Your task to perform on an android device: View the shopping cart on costco.com. Add logitech g pro to the cart on costco.com Image 0: 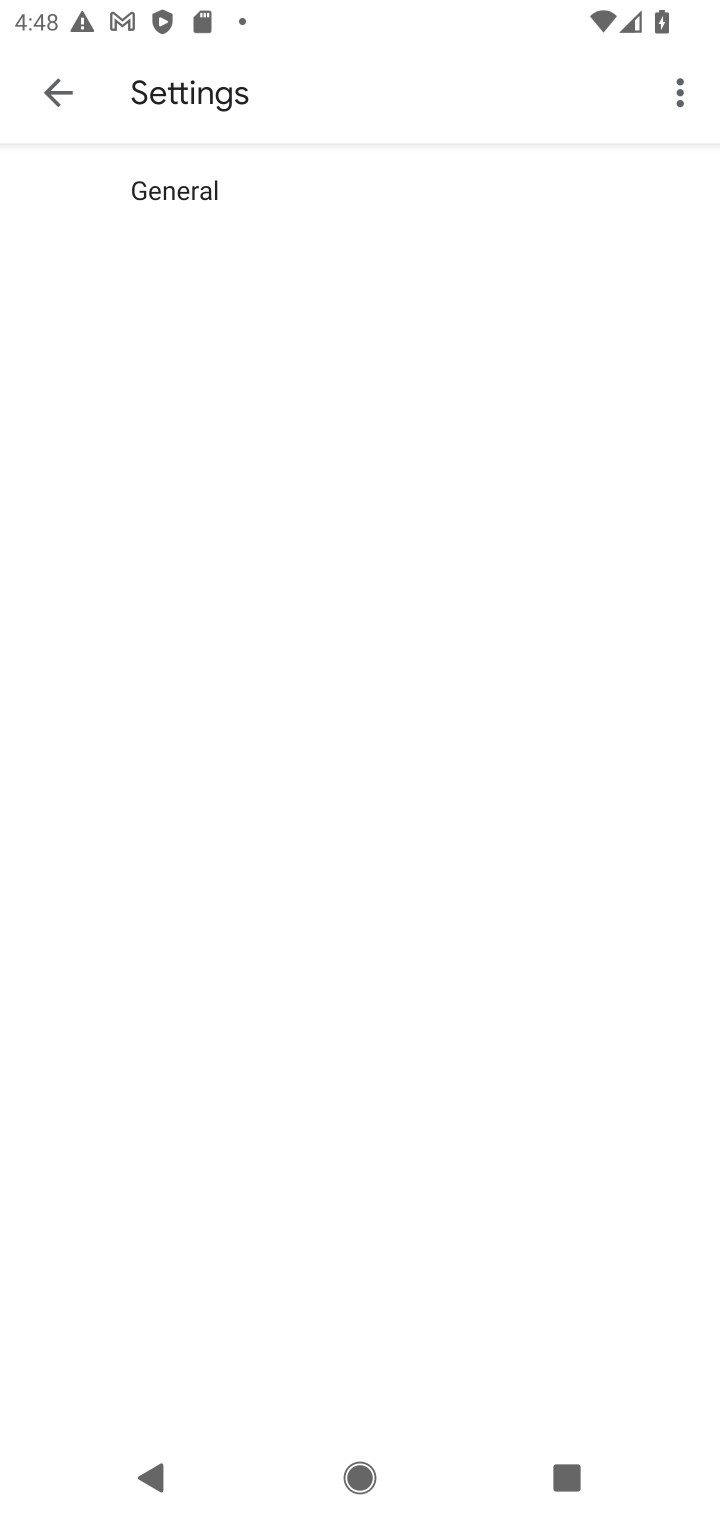
Step 0: press home button
Your task to perform on an android device: View the shopping cart on costco.com. Add logitech g pro to the cart on costco.com Image 1: 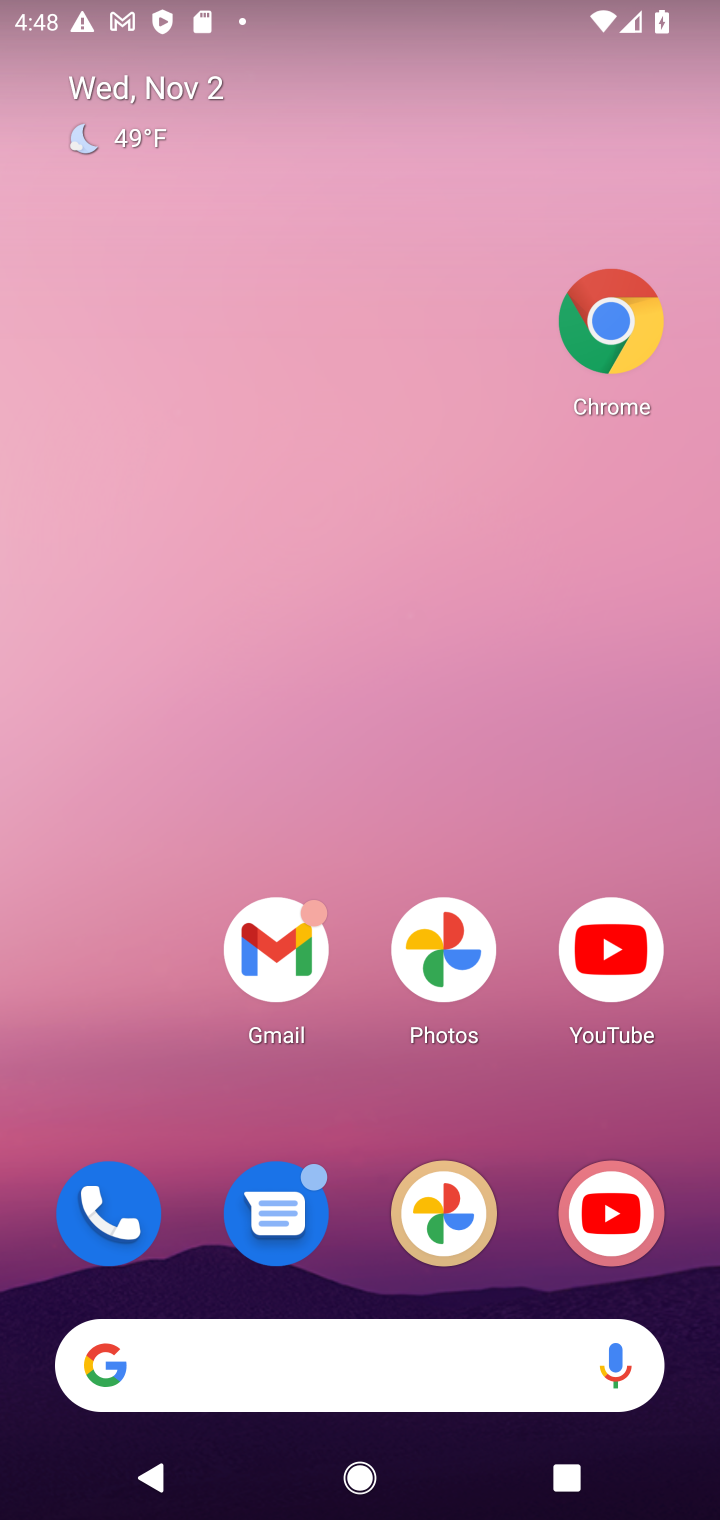
Step 1: drag from (444, 1047) to (492, 698)
Your task to perform on an android device: View the shopping cart on costco.com. Add logitech g pro to the cart on costco.com Image 2: 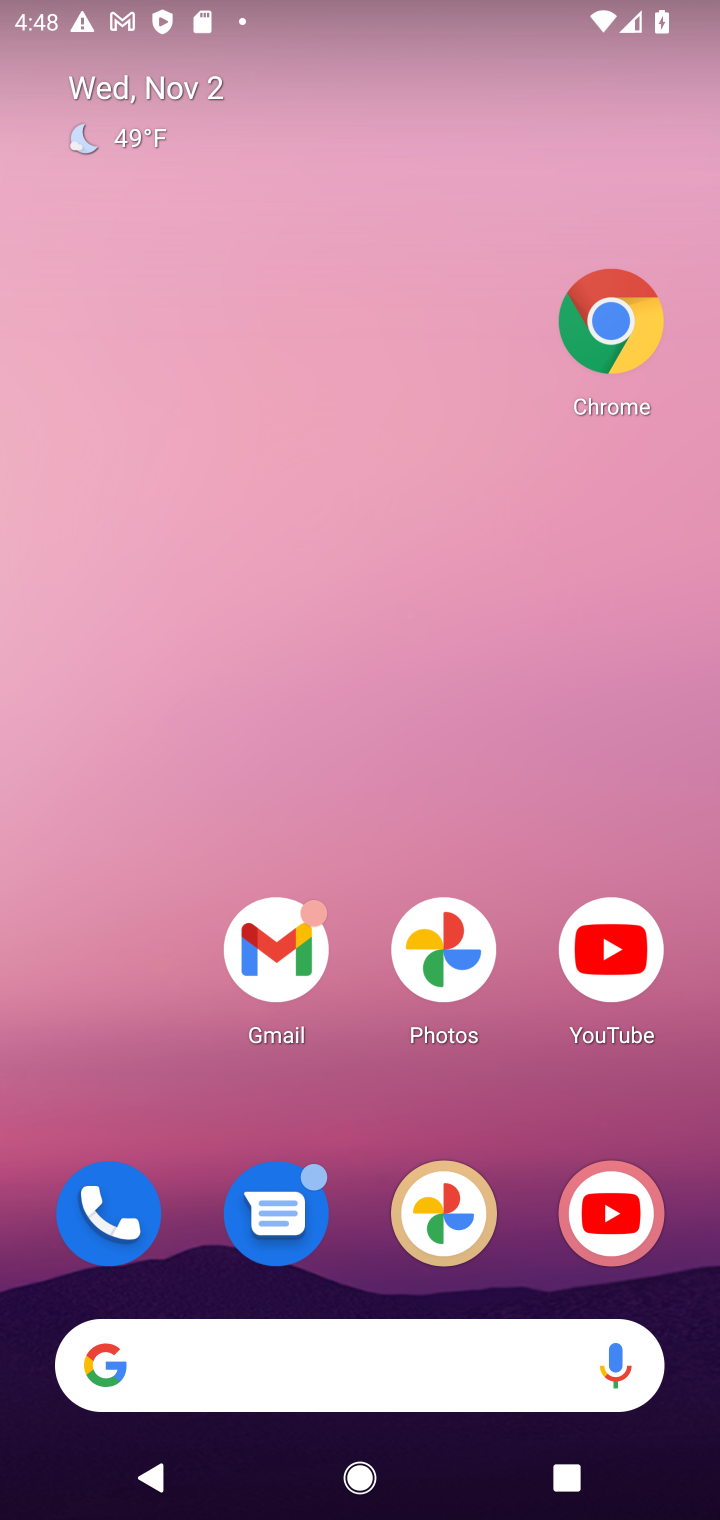
Step 2: drag from (398, 1270) to (291, 67)
Your task to perform on an android device: View the shopping cart on costco.com. Add logitech g pro to the cart on costco.com Image 3: 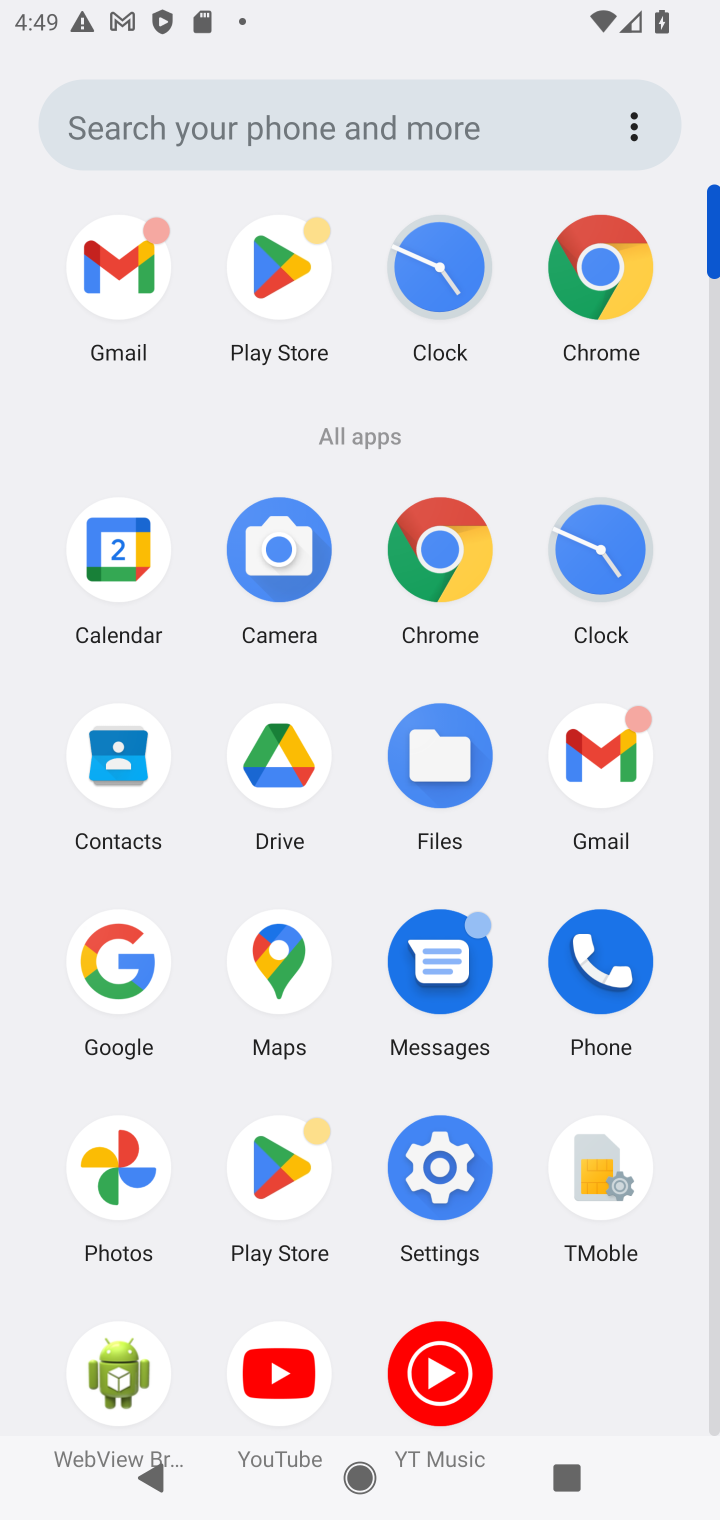
Step 3: click (117, 989)
Your task to perform on an android device: View the shopping cart on costco.com. Add logitech g pro to the cart on costco.com Image 4: 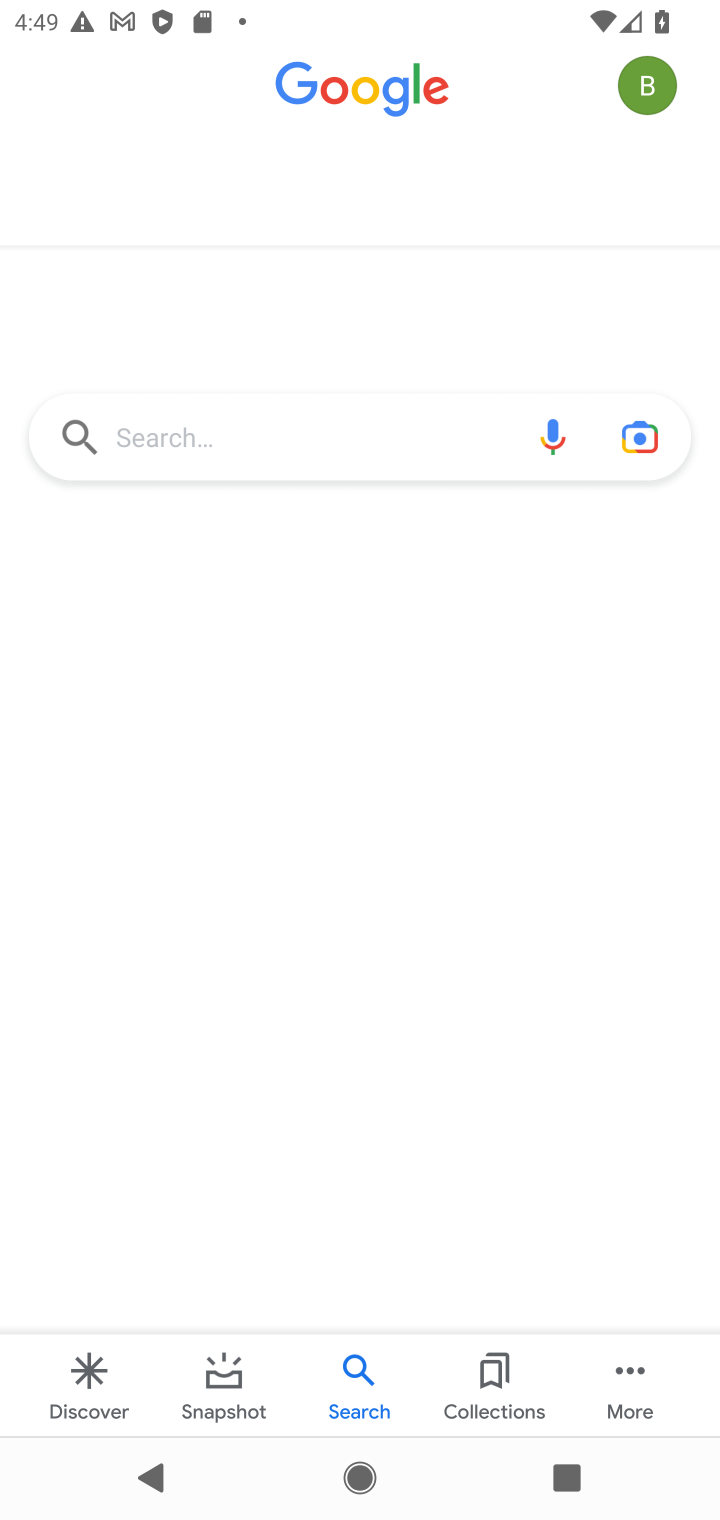
Step 4: click (370, 436)
Your task to perform on an android device: View the shopping cart on costco.com. Add logitech g pro to the cart on costco.com Image 5: 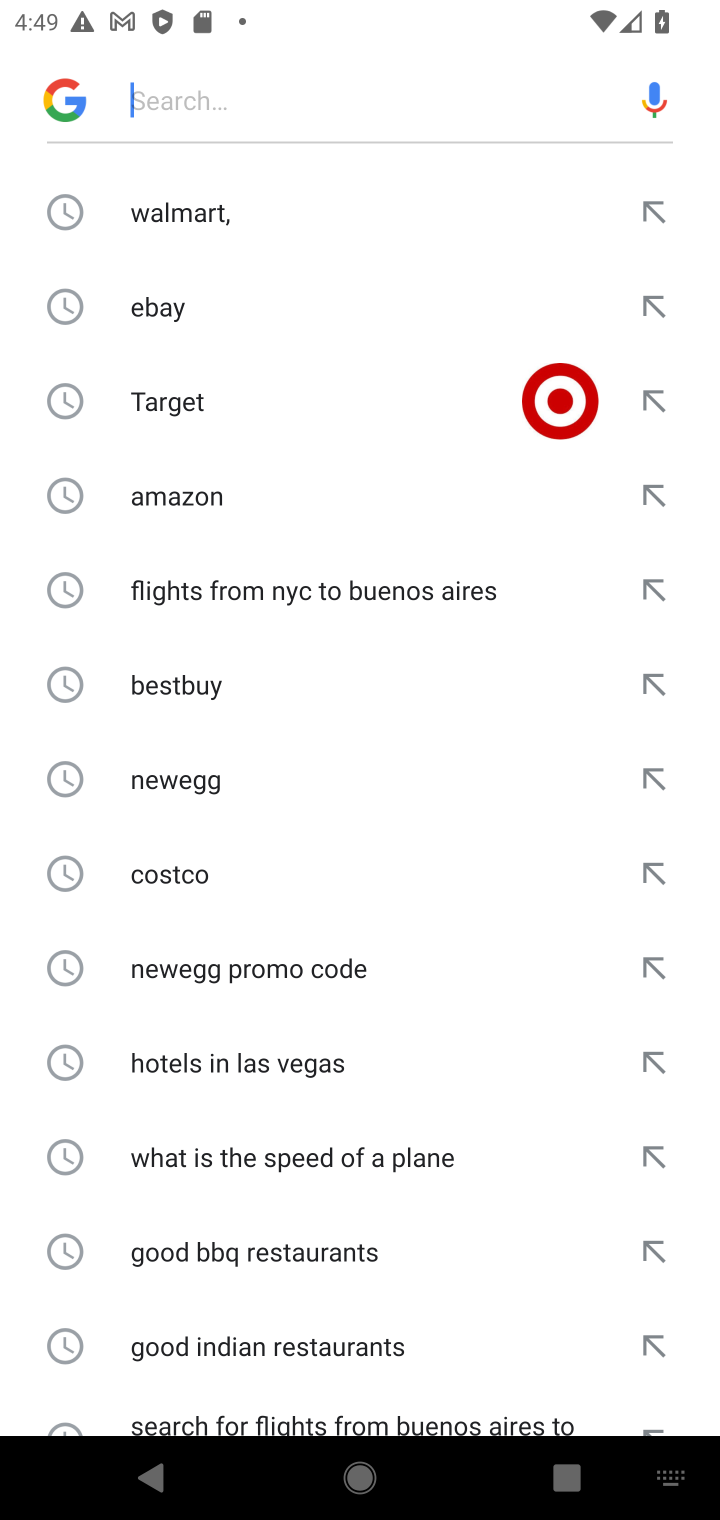
Step 5: type "costco.com."
Your task to perform on an android device: View the shopping cart on costco.com. Add logitech g pro to the cart on costco.com Image 6: 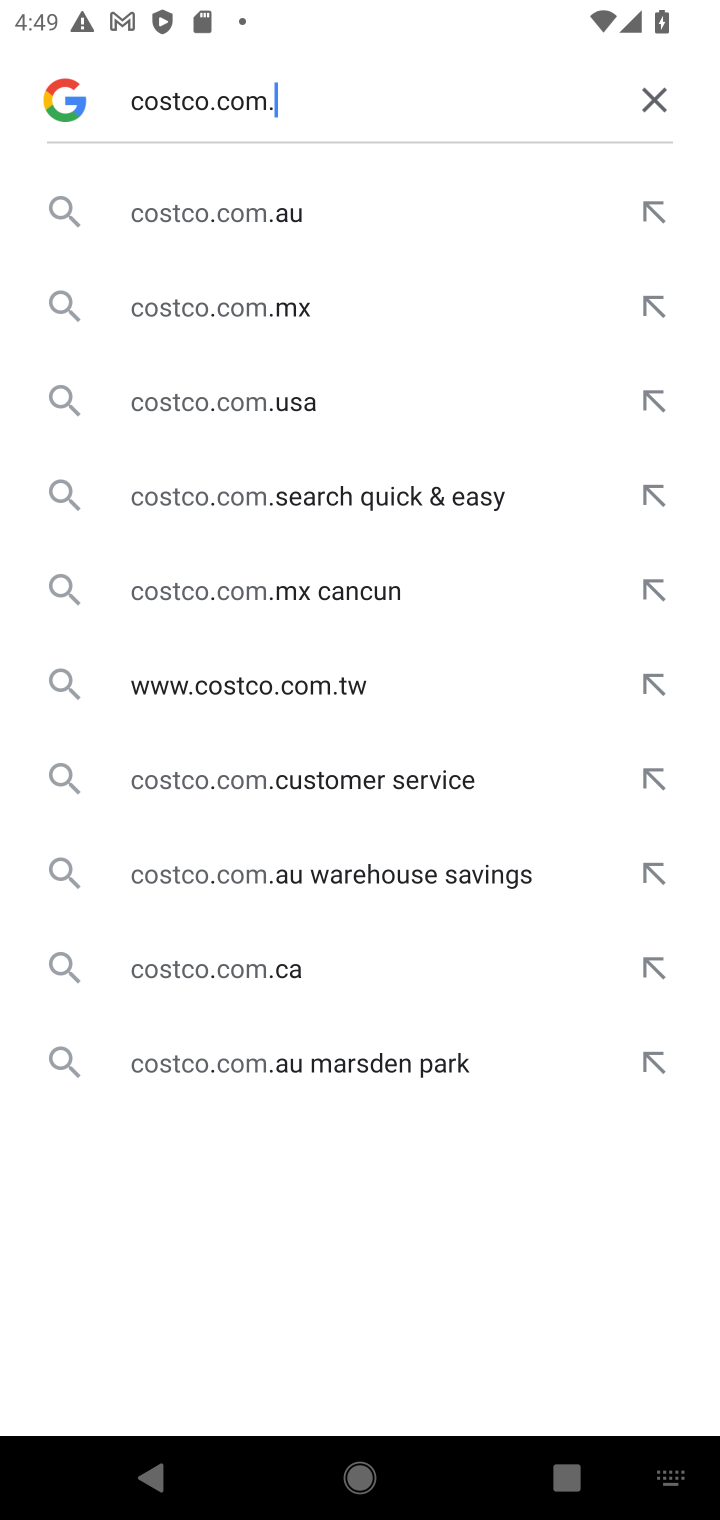
Step 6: click (650, 103)
Your task to perform on an android device: View the shopping cart on costco.com. Add logitech g pro to the cart on costco.com Image 7: 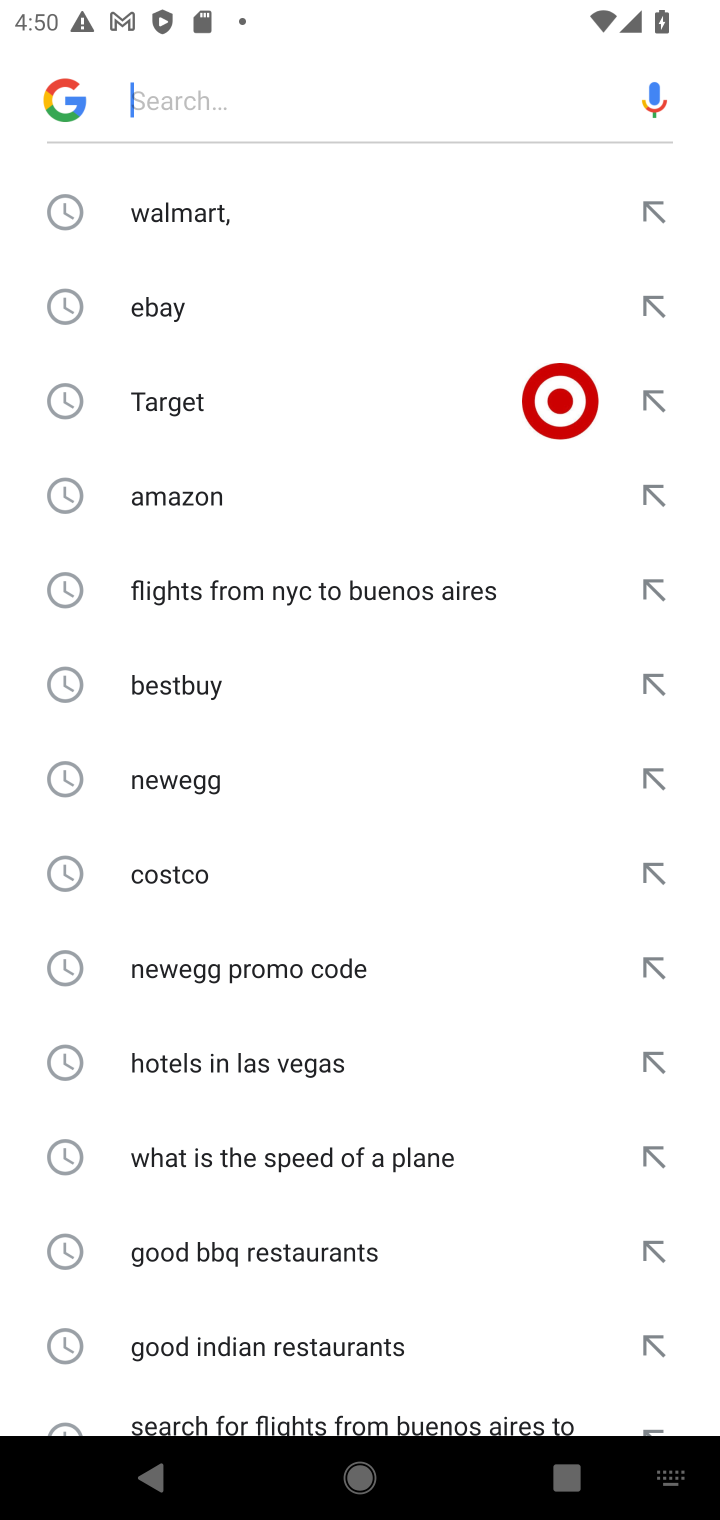
Step 7: type "costco.com"
Your task to perform on an android device: View the shopping cart on costco.com. Add logitech g pro to the cart on costco.com Image 8: 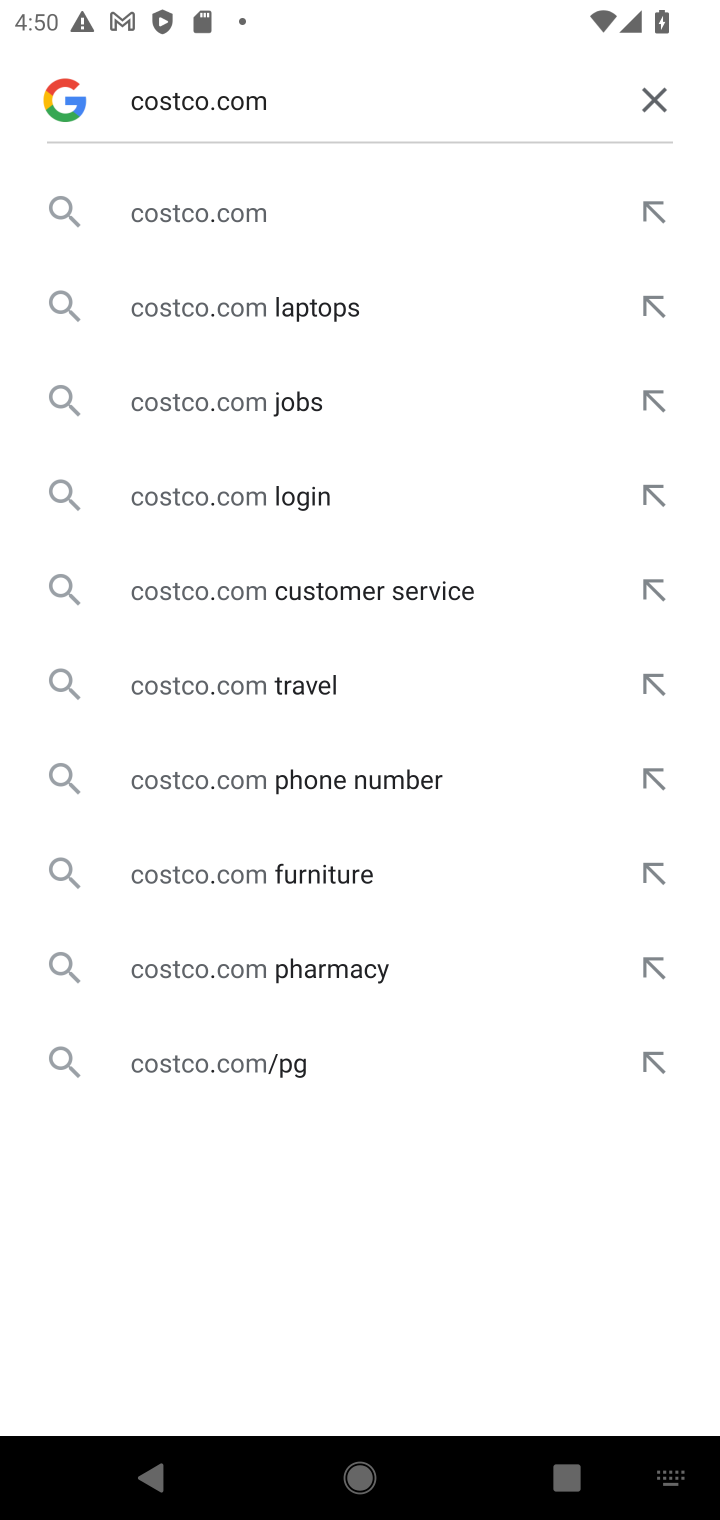
Step 8: click (403, 189)
Your task to perform on an android device: View the shopping cart on costco.com. Add logitech g pro to the cart on costco.com Image 9: 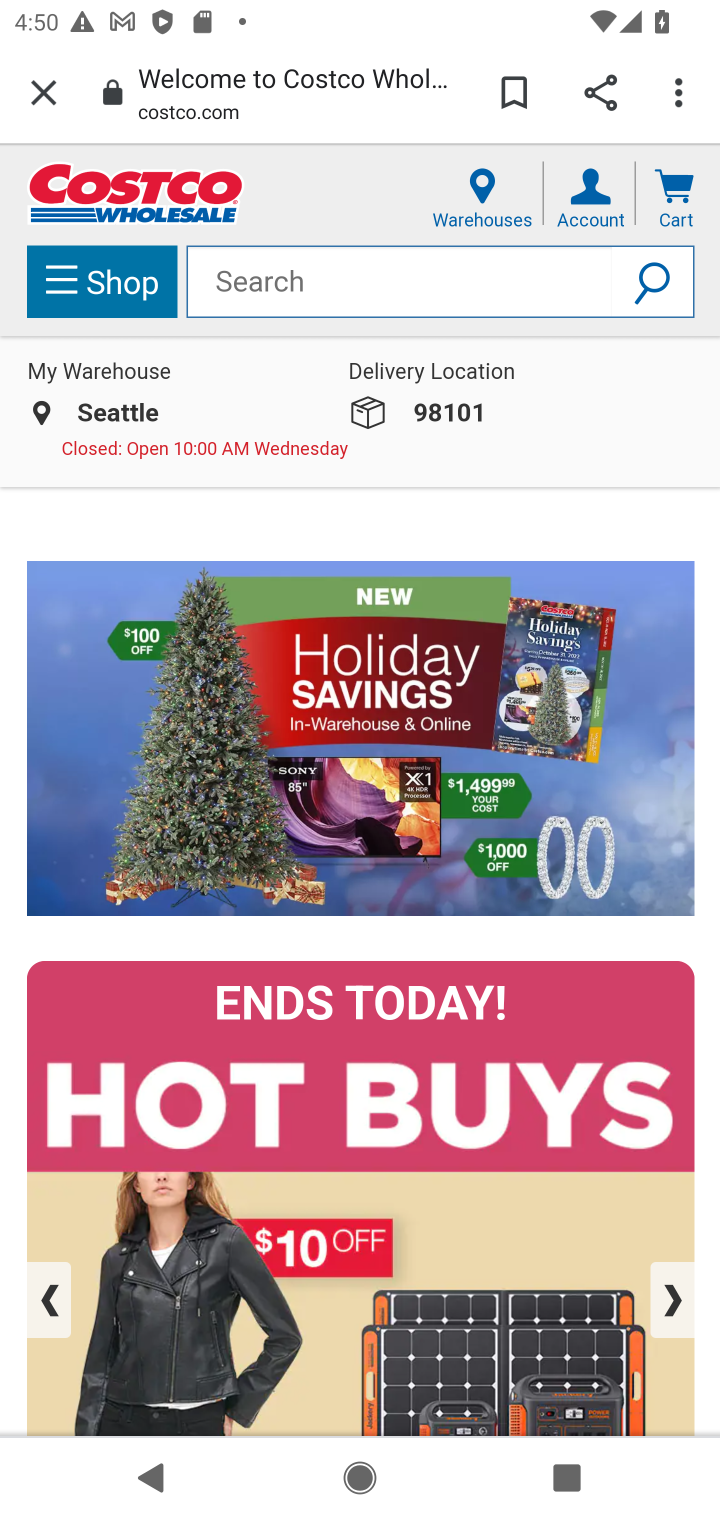
Step 9: click (308, 308)
Your task to perform on an android device: View the shopping cart on costco.com. Add logitech g pro to the cart on costco.com Image 10: 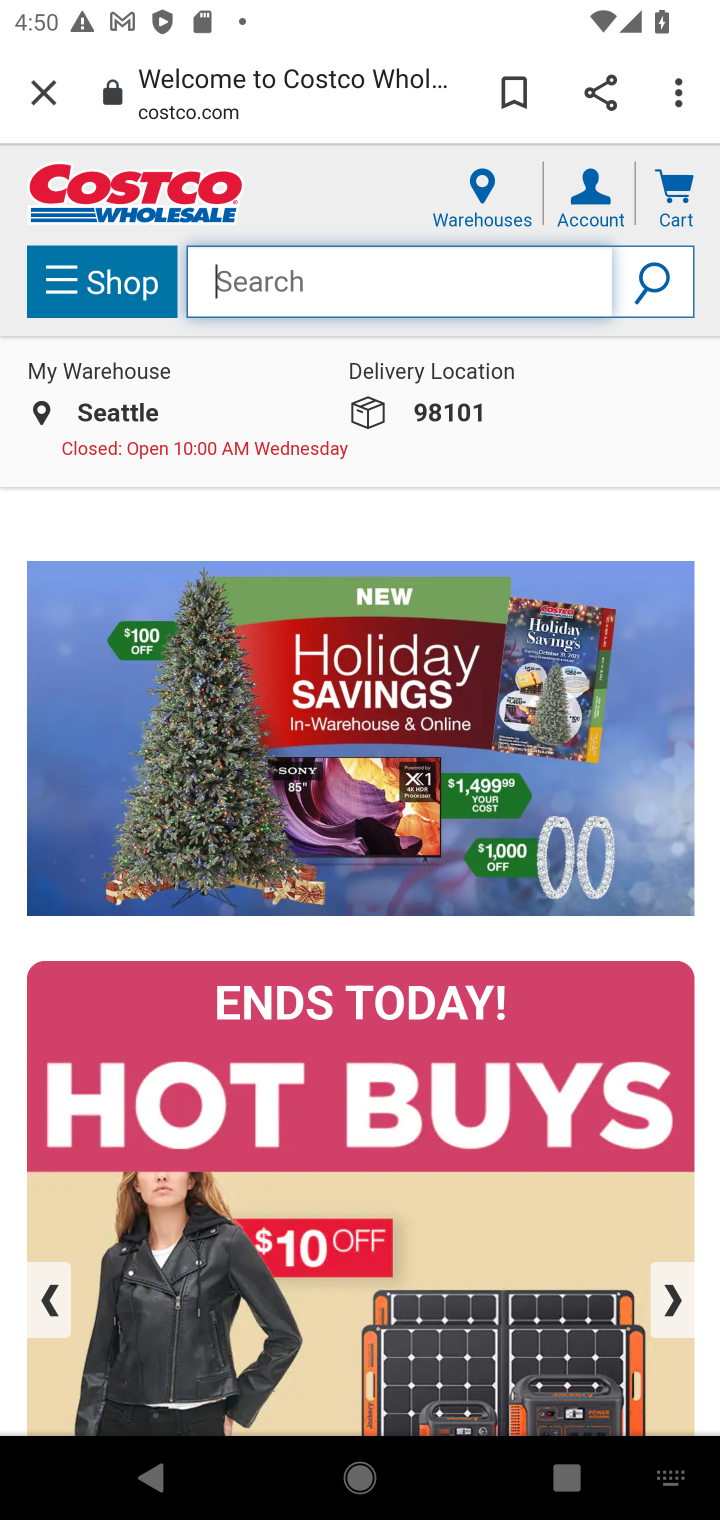
Step 10: type "logitech g pro"
Your task to perform on an android device: View the shopping cart on costco.com. Add logitech g pro to the cart on costco.com Image 11: 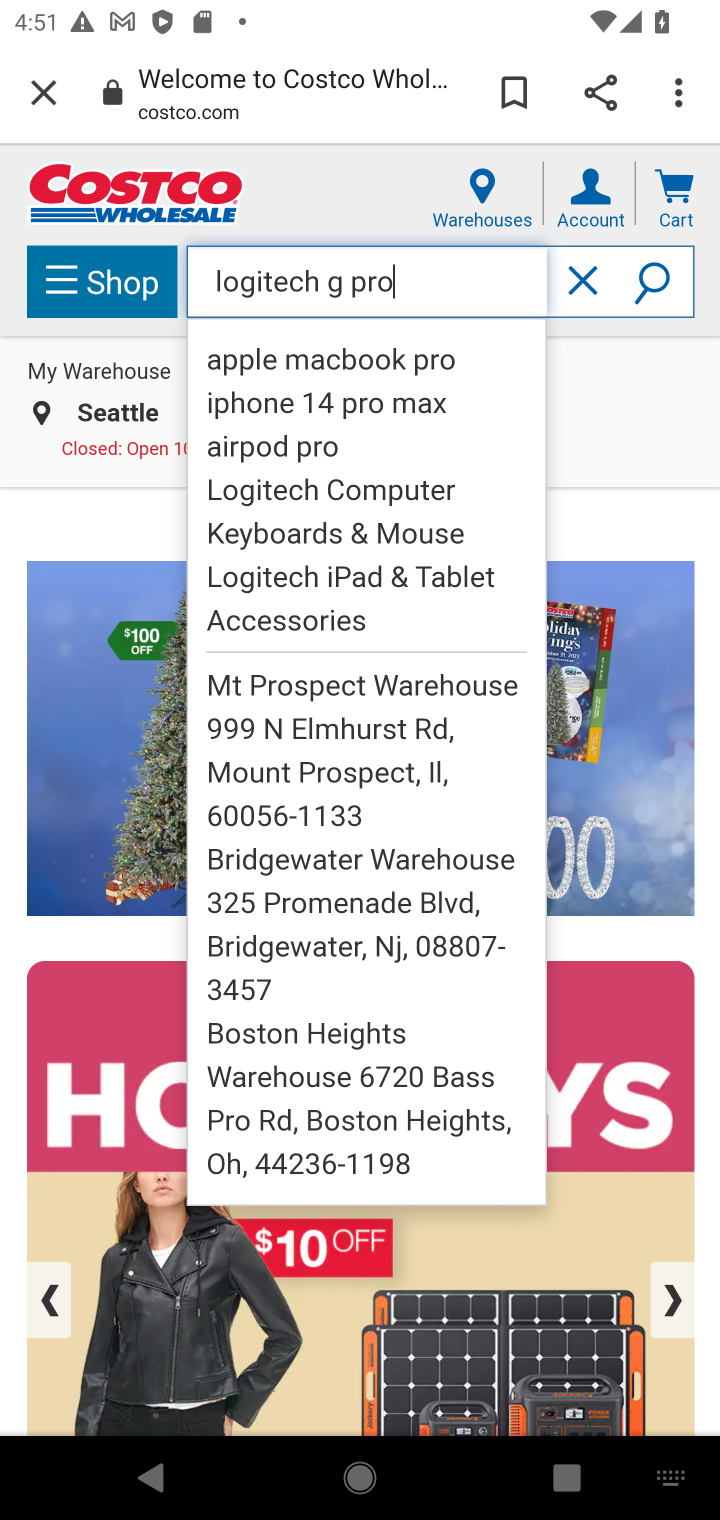
Step 11: click (660, 289)
Your task to perform on an android device: View the shopping cart on costco.com. Add logitech g pro to the cart on costco.com Image 12: 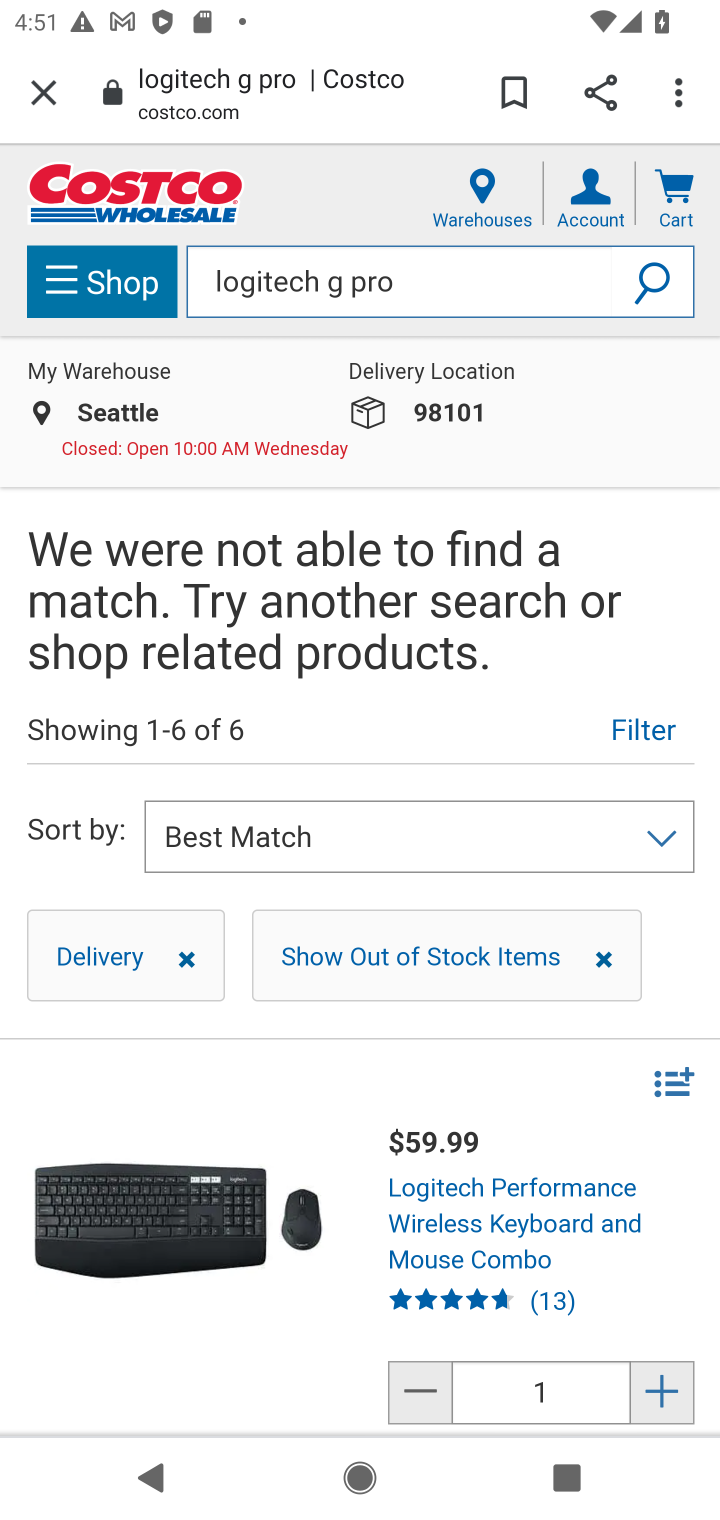
Step 12: task complete